Your task to perform on an android device: Search for vegetarian restaurants on Maps Image 0: 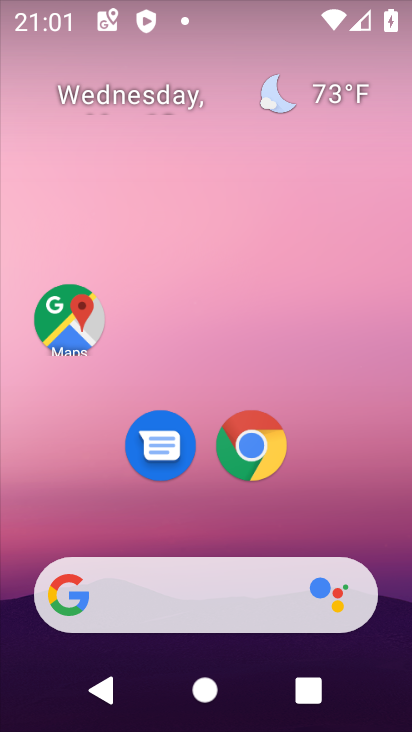
Step 0: click (71, 305)
Your task to perform on an android device: Search for vegetarian restaurants on Maps Image 1: 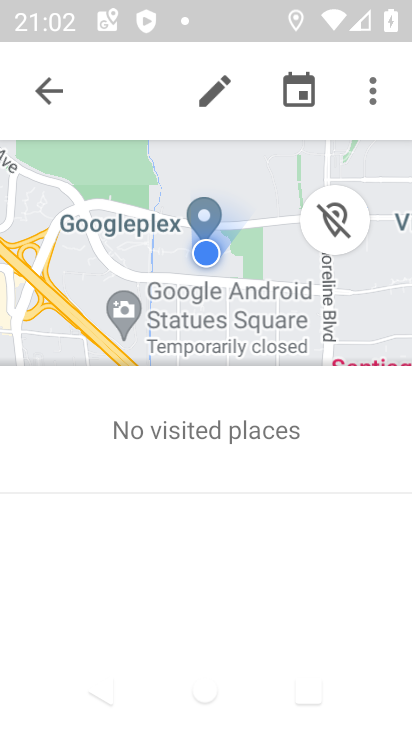
Step 1: click (27, 78)
Your task to perform on an android device: Search for vegetarian restaurants on Maps Image 2: 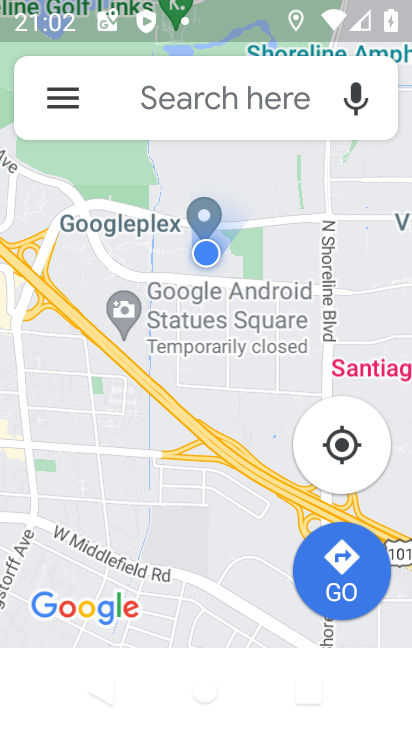
Step 2: click (199, 83)
Your task to perform on an android device: Search for vegetarian restaurants on Maps Image 3: 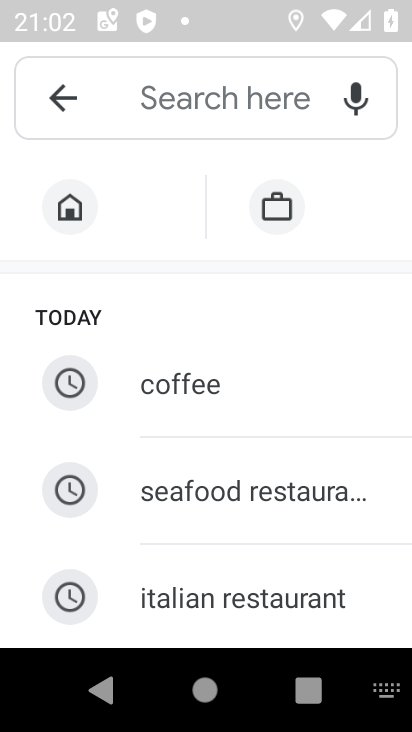
Step 3: click (209, 81)
Your task to perform on an android device: Search for vegetarian restaurants on Maps Image 4: 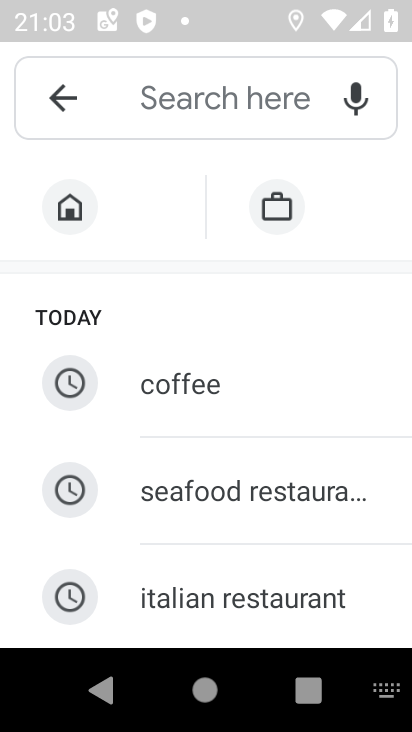
Step 4: type " vegetarian restaurants]"
Your task to perform on an android device: Search for vegetarian restaurants on Maps Image 5: 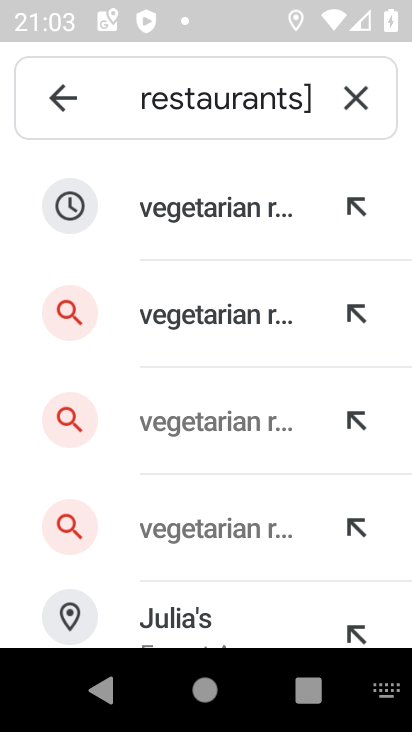
Step 5: click (240, 192)
Your task to perform on an android device: Search for vegetarian restaurants on Maps Image 6: 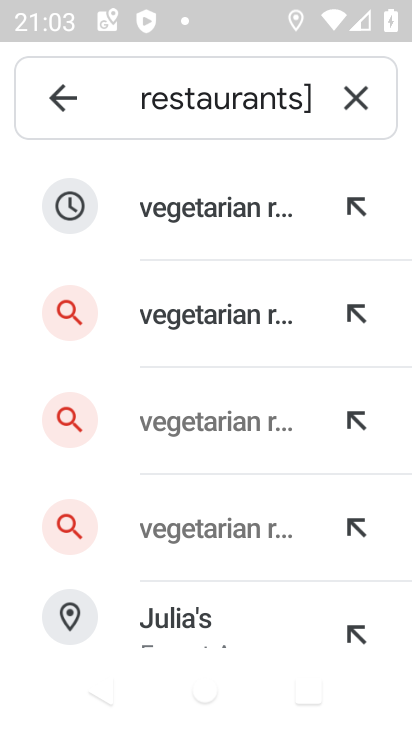
Step 6: task complete